Your task to perform on an android device: show emergency info Image 0: 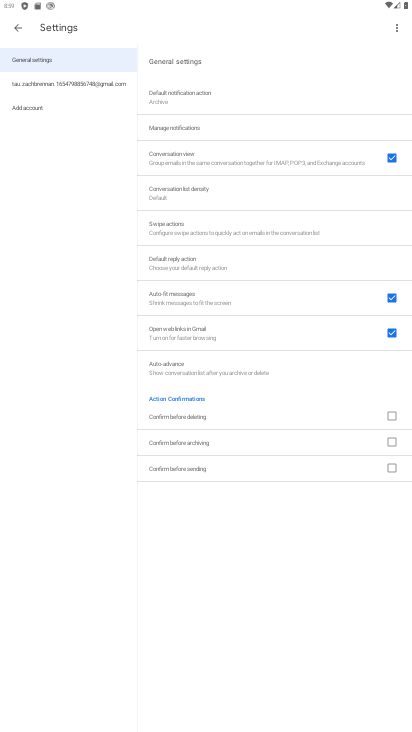
Step 0: press home button
Your task to perform on an android device: show emergency info Image 1: 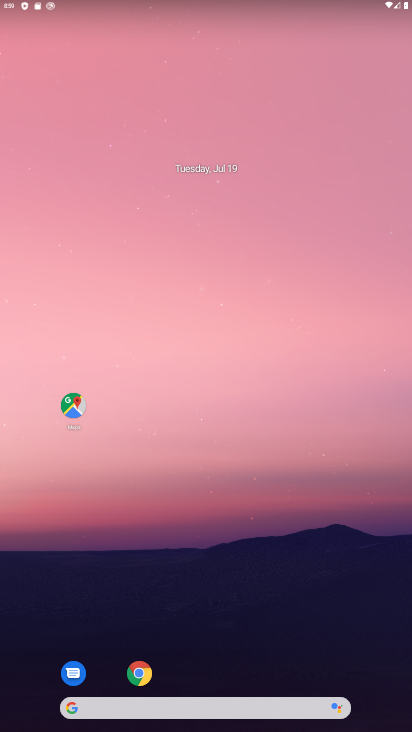
Step 1: drag from (216, 635) to (225, 51)
Your task to perform on an android device: show emergency info Image 2: 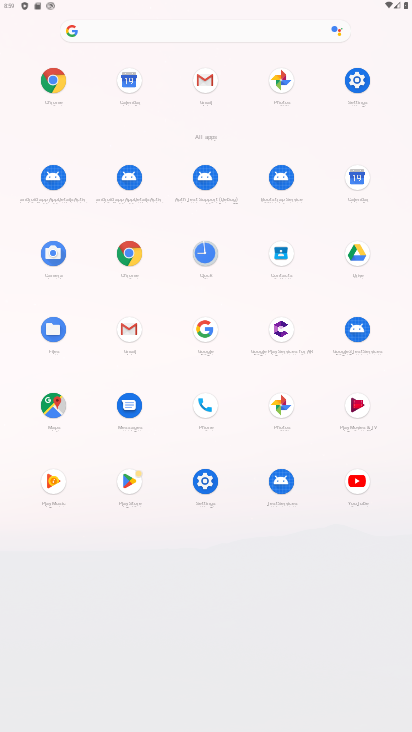
Step 2: click (360, 79)
Your task to perform on an android device: show emergency info Image 3: 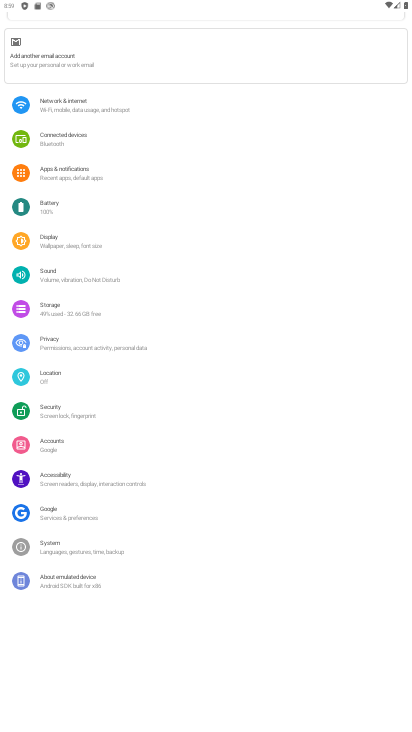
Step 3: click (89, 580)
Your task to perform on an android device: show emergency info Image 4: 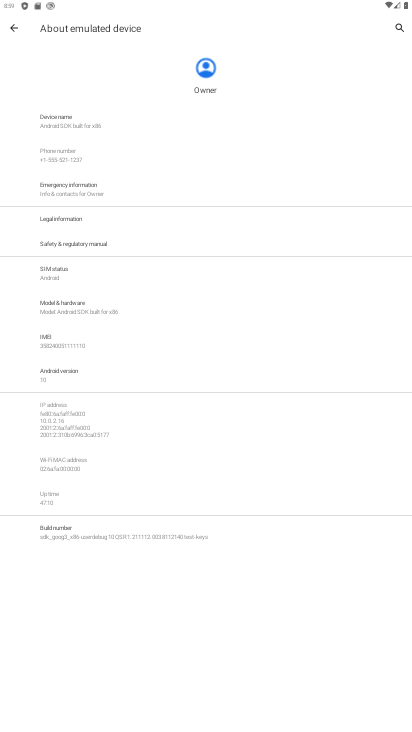
Step 4: click (45, 185)
Your task to perform on an android device: show emergency info Image 5: 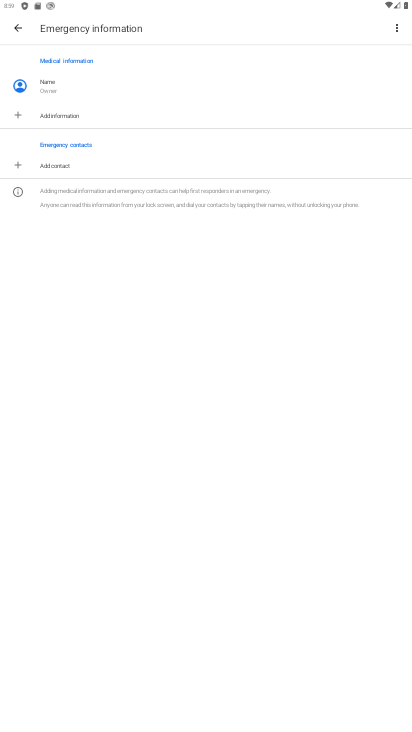
Step 5: task complete